Your task to perform on an android device: Open sound settings Image 0: 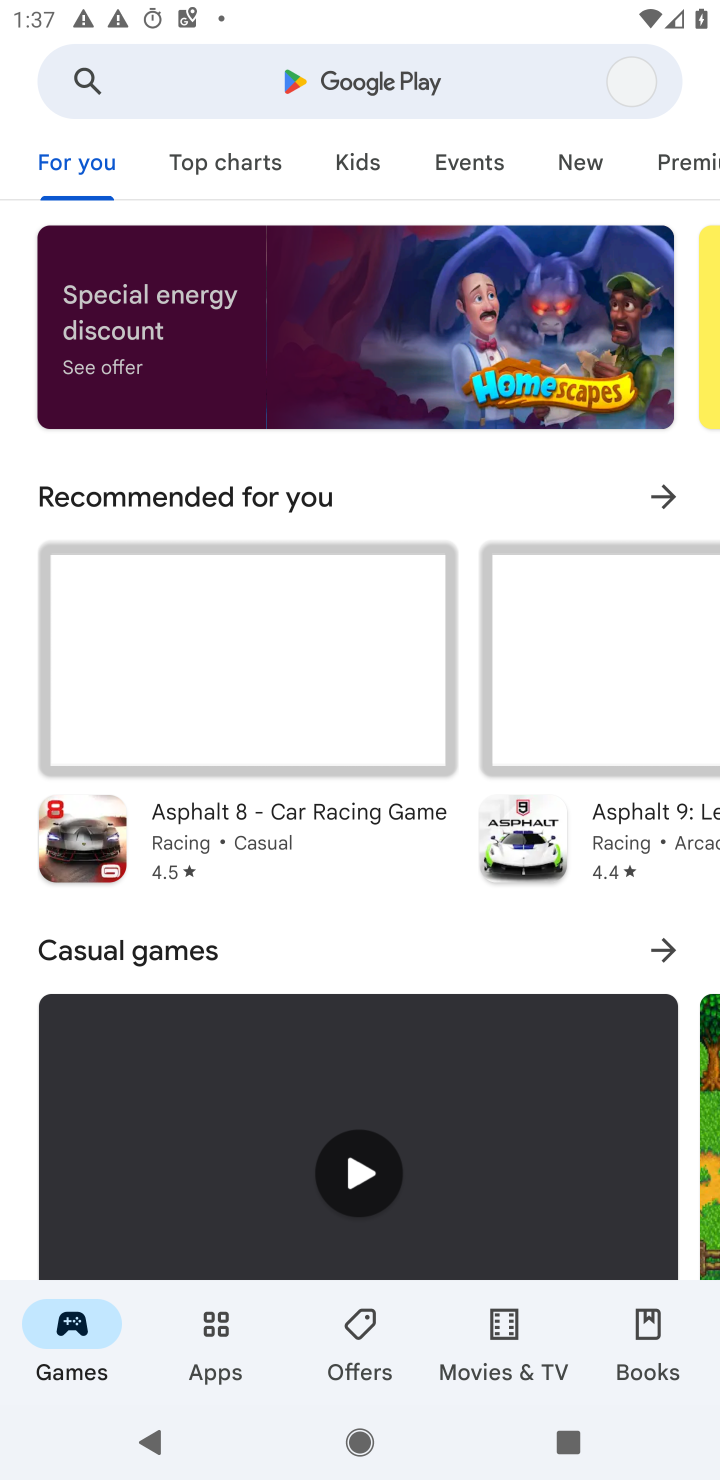
Step 0: press home button
Your task to perform on an android device: Open sound settings Image 1: 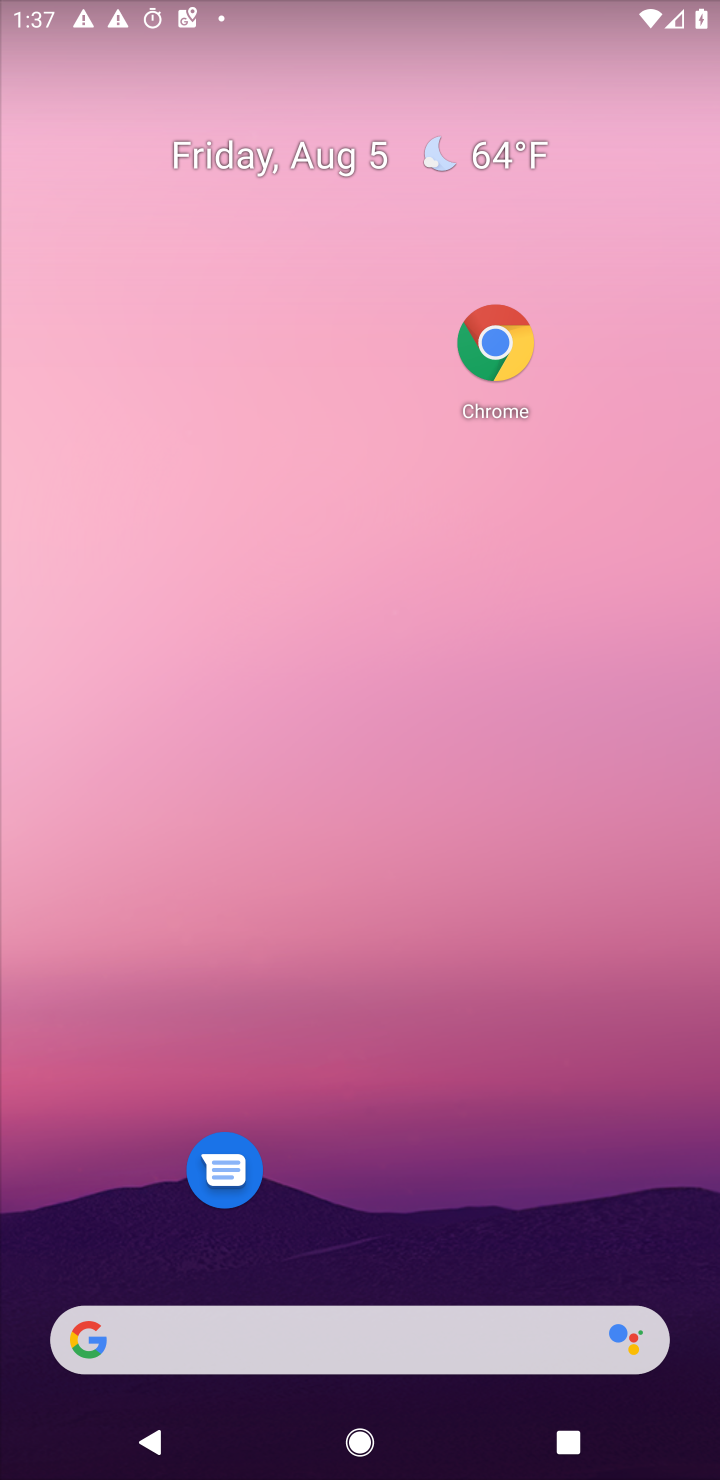
Step 1: drag from (427, 1077) to (279, 114)
Your task to perform on an android device: Open sound settings Image 2: 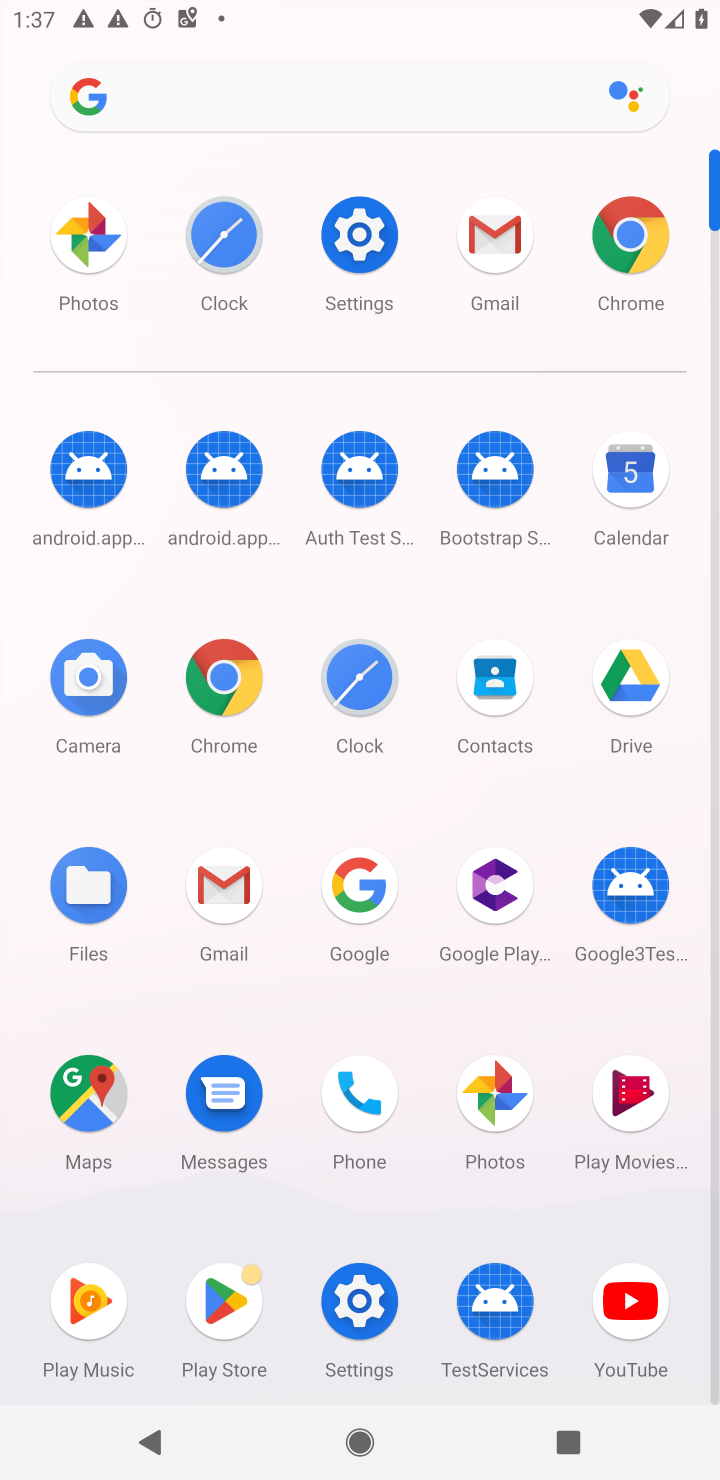
Step 2: click (358, 1312)
Your task to perform on an android device: Open sound settings Image 3: 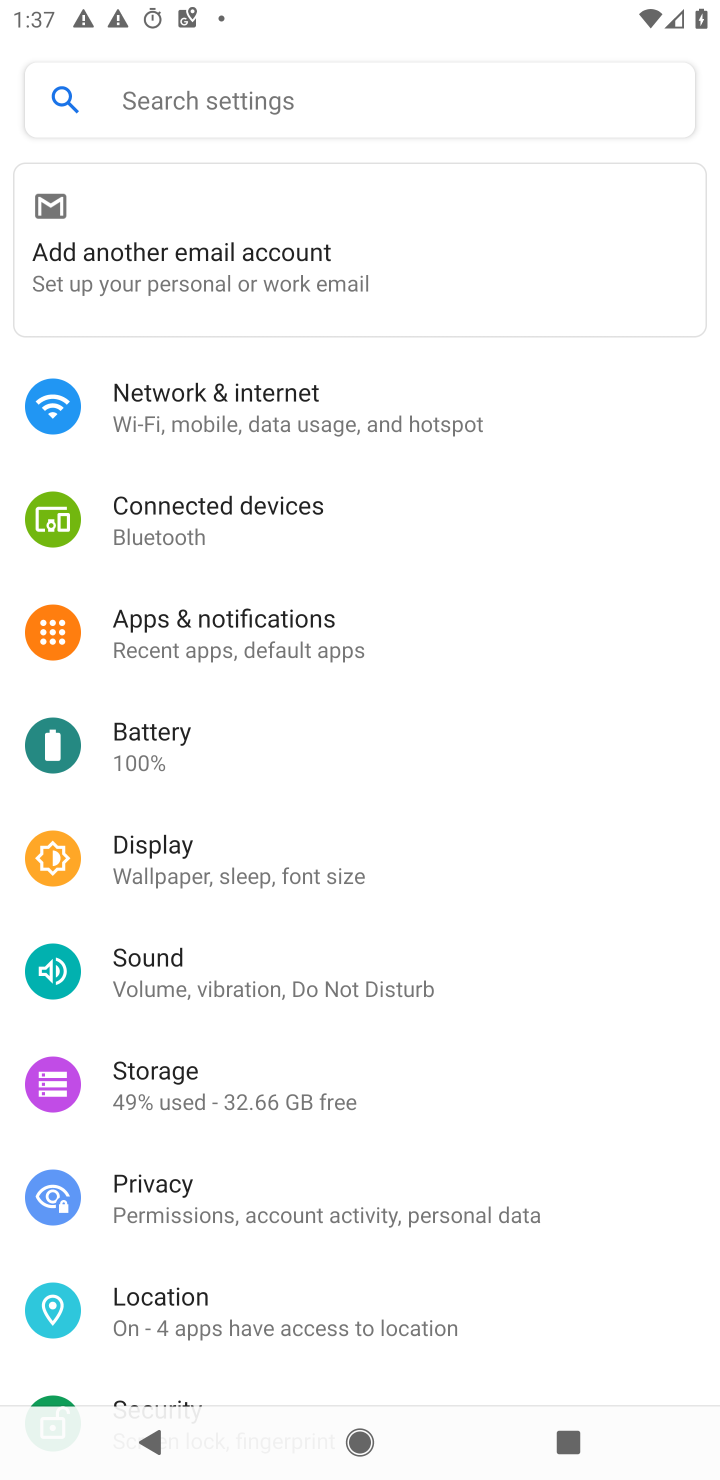
Step 3: click (215, 960)
Your task to perform on an android device: Open sound settings Image 4: 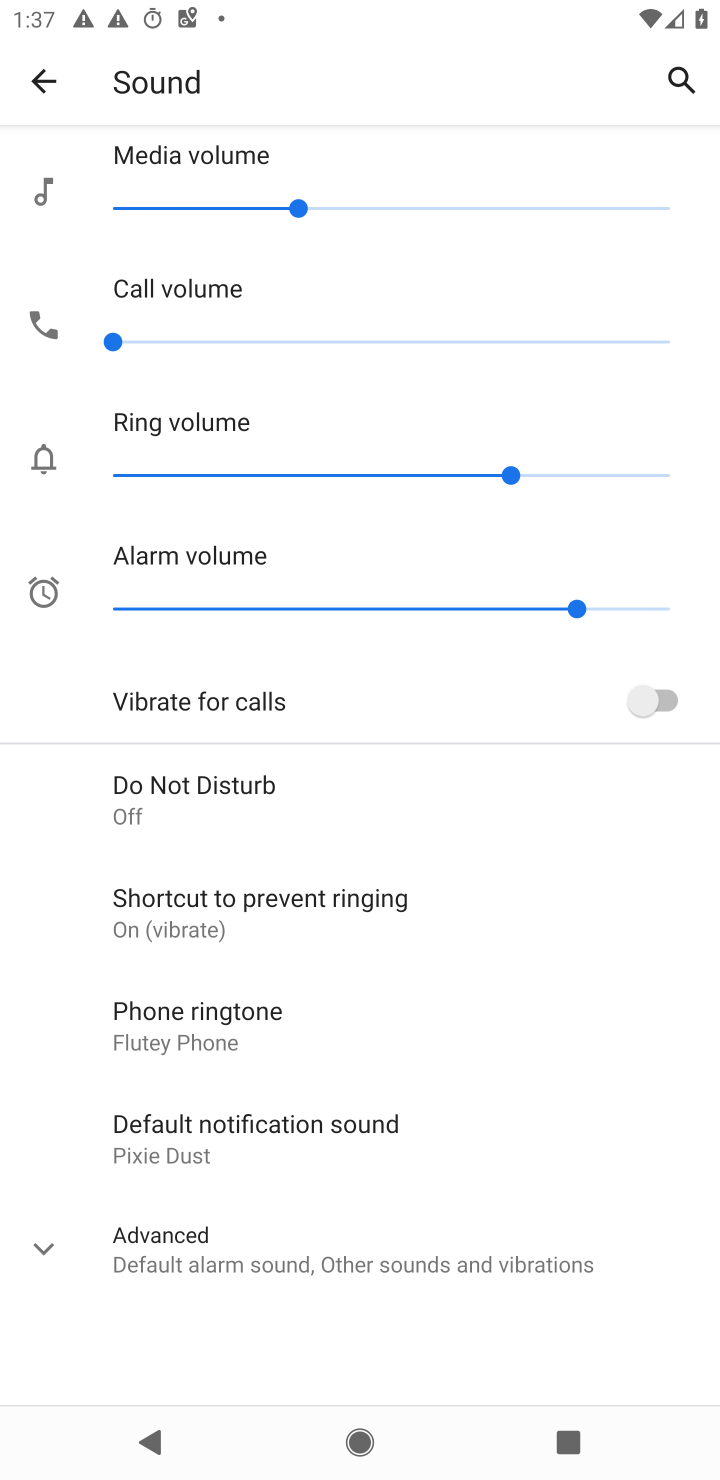
Step 4: task complete